Your task to perform on an android device: What's on my calendar today? Image 0: 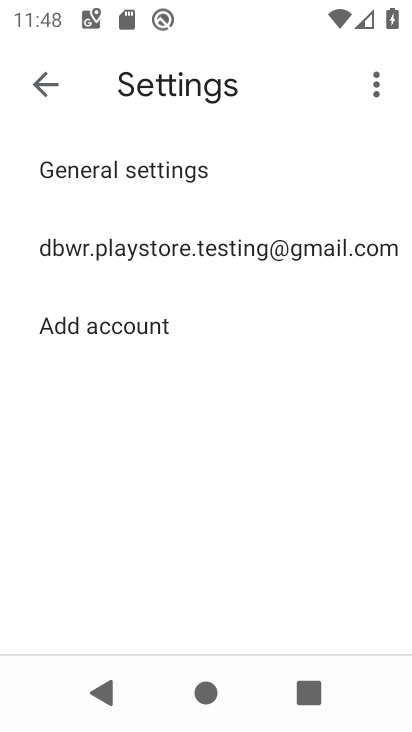
Step 0: press home button
Your task to perform on an android device: What's on my calendar today? Image 1: 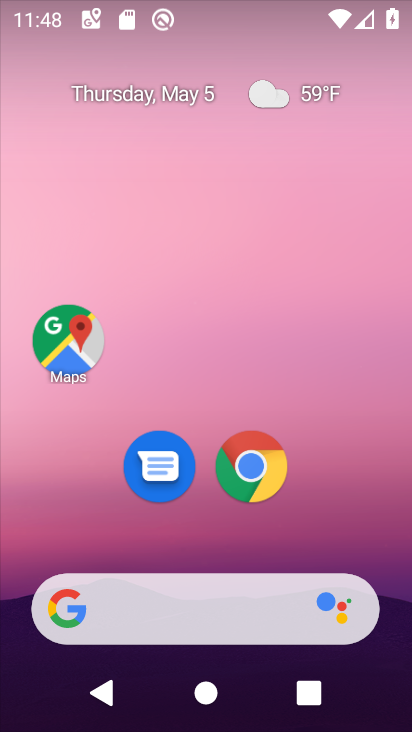
Step 1: drag from (379, 497) to (332, 169)
Your task to perform on an android device: What's on my calendar today? Image 2: 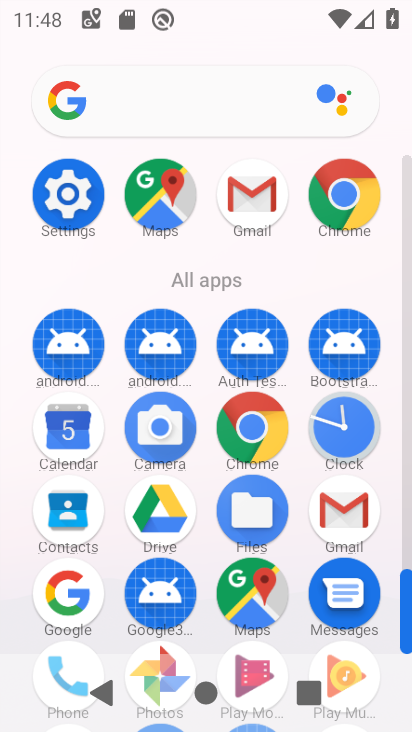
Step 2: click (75, 420)
Your task to perform on an android device: What's on my calendar today? Image 3: 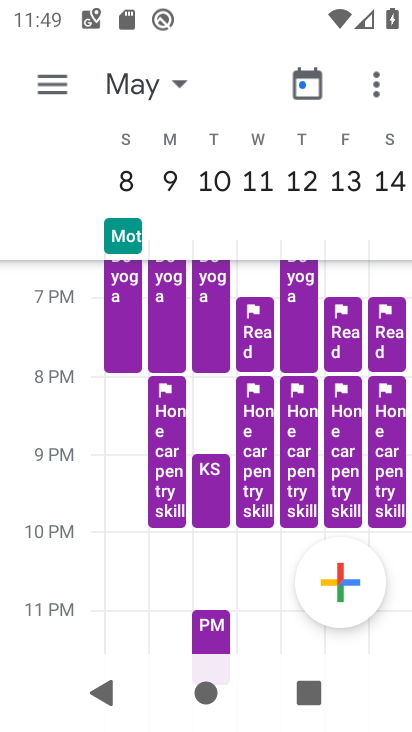
Step 3: click (69, 94)
Your task to perform on an android device: What's on my calendar today? Image 4: 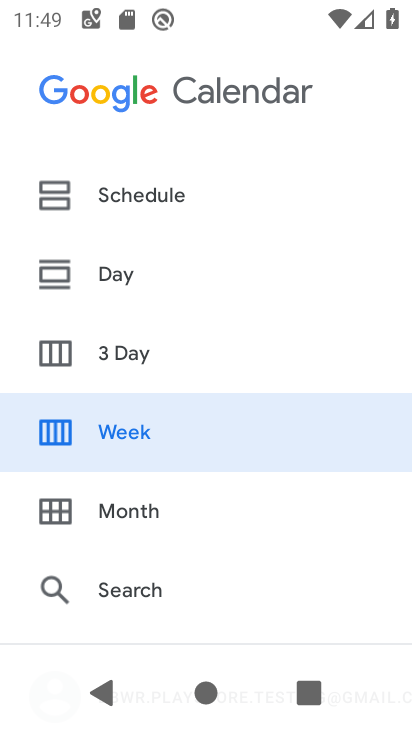
Step 4: click (126, 256)
Your task to perform on an android device: What's on my calendar today? Image 5: 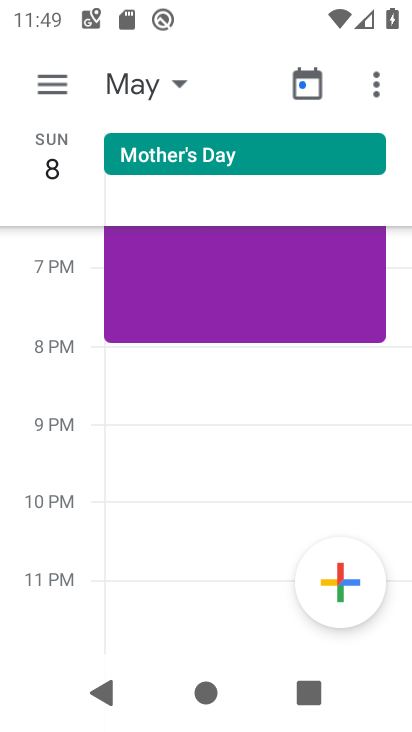
Step 5: click (137, 78)
Your task to perform on an android device: What's on my calendar today? Image 6: 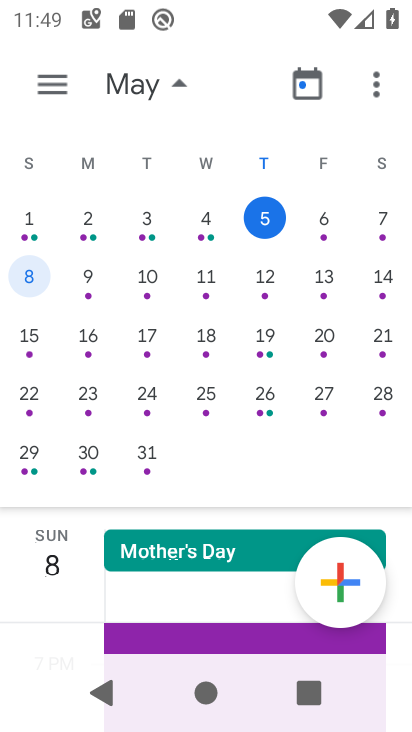
Step 6: click (328, 224)
Your task to perform on an android device: What's on my calendar today? Image 7: 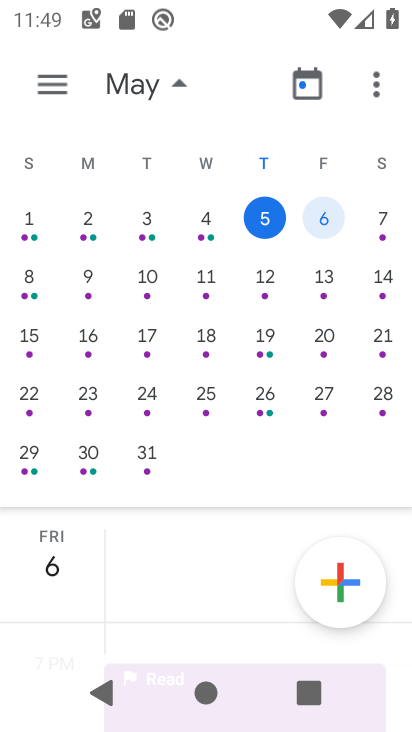
Step 7: click (184, 100)
Your task to perform on an android device: What's on my calendar today? Image 8: 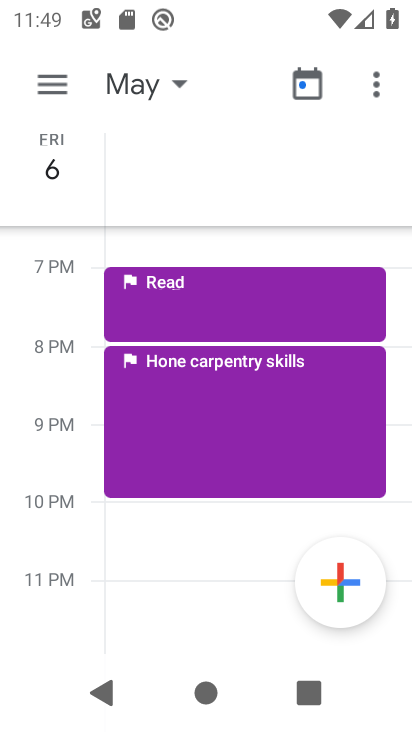
Step 8: task complete